Your task to perform on an android device: Go to accessibility settings Image 0: 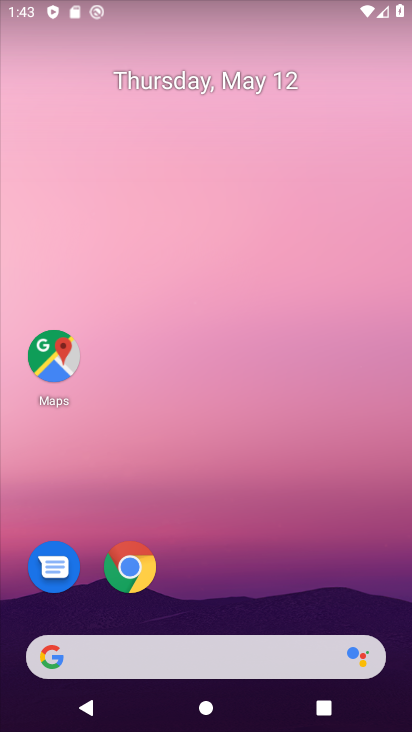
Step 0: drag from (229, 634) to (242, 178)
Your task to perform on an android device: Go to accessibility settings Image 1: 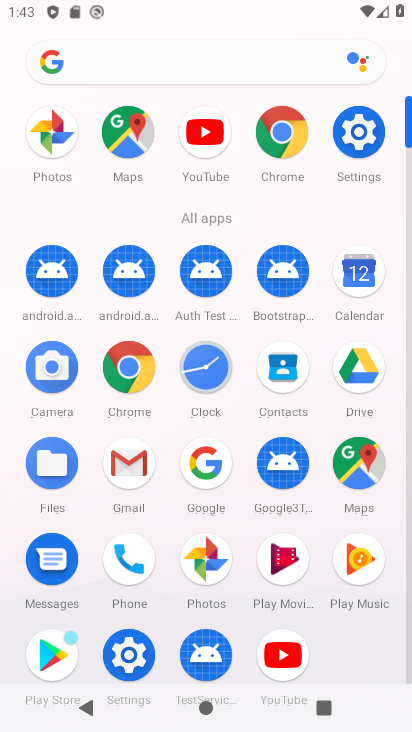
Step 1: click (369, 130)
Your task to perform on an android device: Go to accessibility settings Image 2: 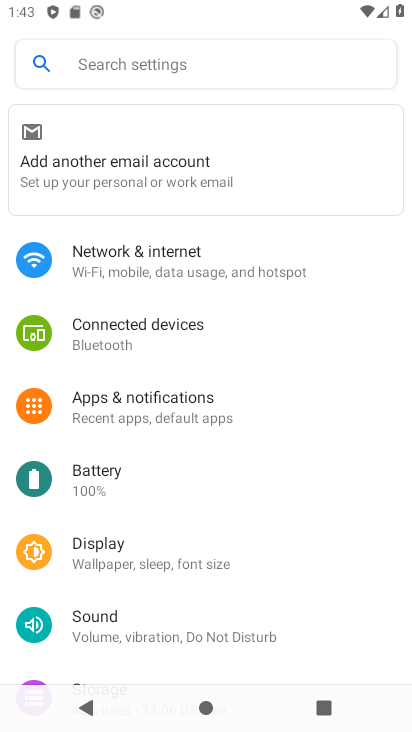
Step 2: drag from (184, 623) to (142, 334)
Your task to perform on an android device: Go to accessibility settings Image 3: 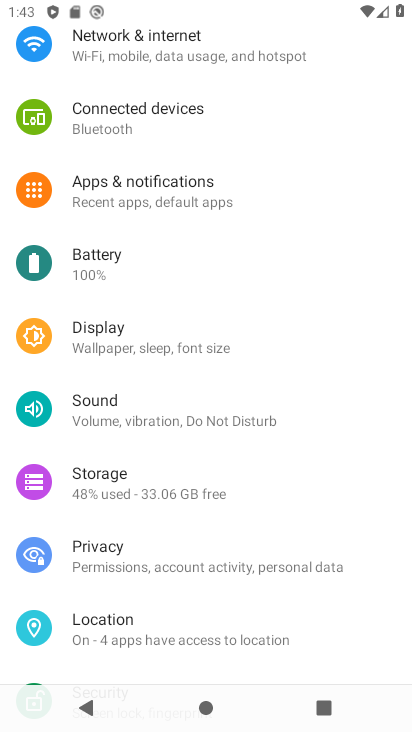
Step 3: drag from (143, 626) to (142, 339)
Your task to perform on an android device: Go to accessibility settings Image 4: 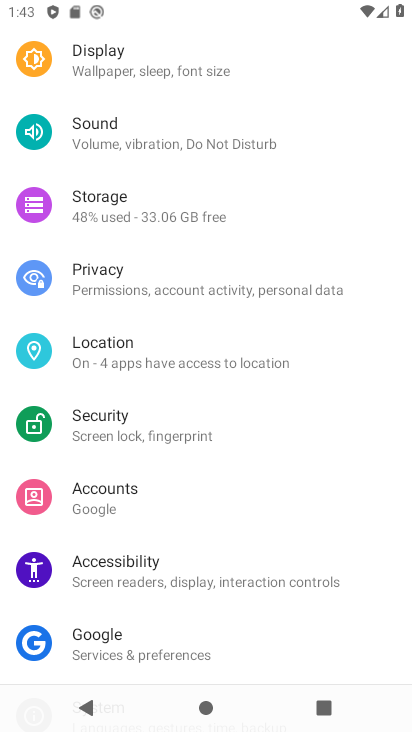
Step 4: click (155, 569)
Your task to perform on an android device: Go to accessibility settings Image 5: 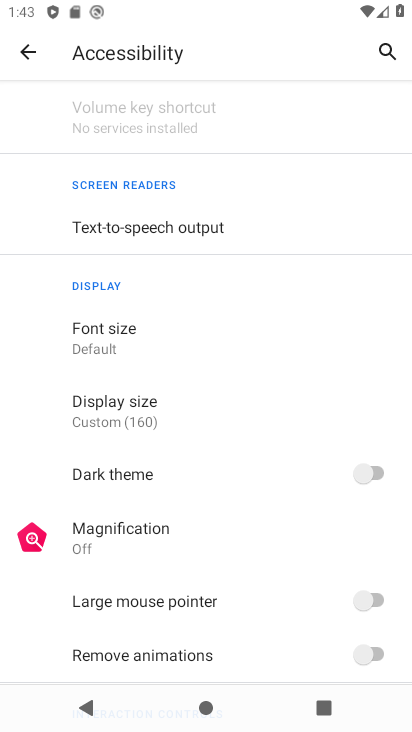
Step 5: task complete